Your task to perform on an android device: Is it going to rain this weekend? Image 0: 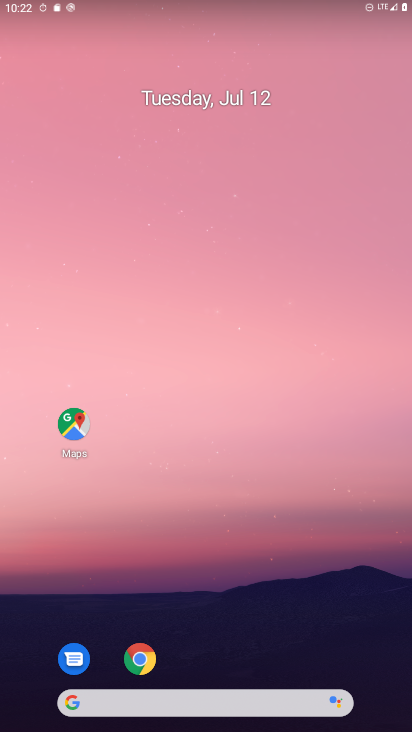
Step 0: drag from (391, 685) to (251, 45)
Your task to perform on an android device: Is it going to rain this weekend? Image 1: 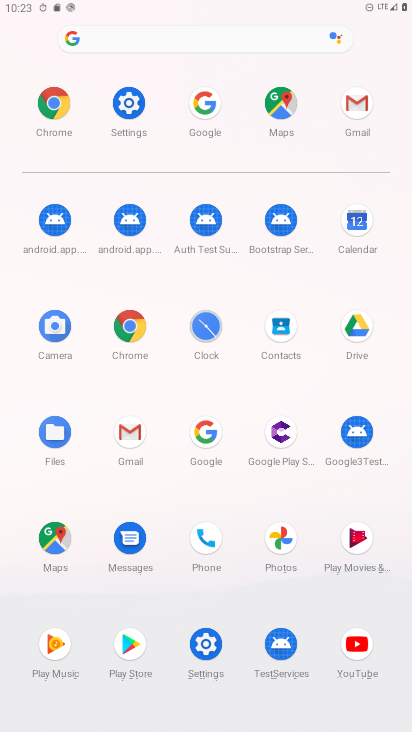
Step 1: click (203, 436)
Your task to perform on an android device: Is it going to rain this weekend? Image 2: 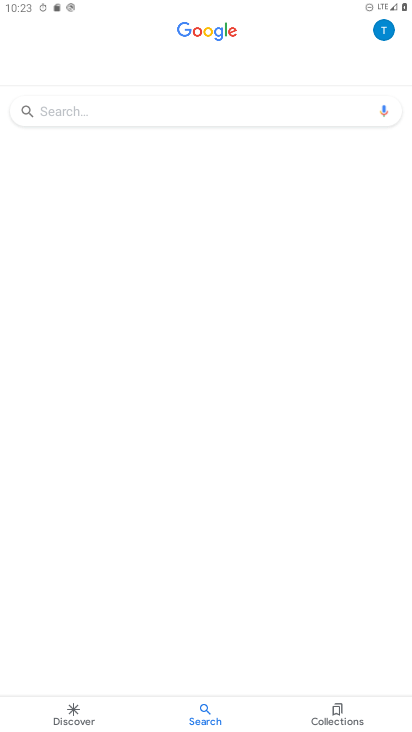
Step 2: click (69, 116)
Your task to perform on an android device: Is it going to rain this weekend? Image 3: 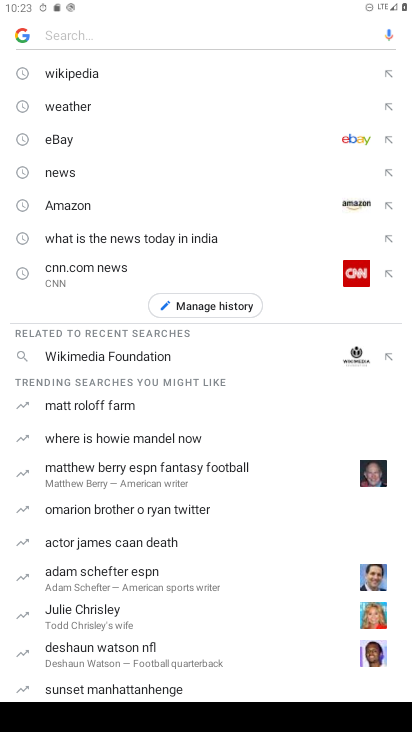
Step 3: type "Is it going to rain this weekend?"
Your task to perform on an android device: Is it going to rain this weekend? Image 4: 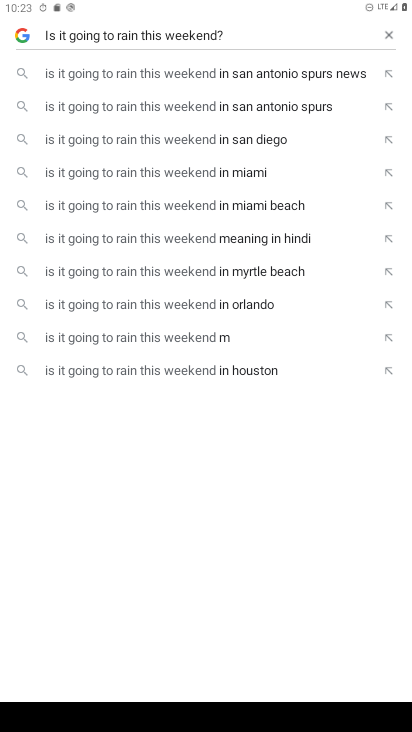
Step 4: click (156, 337)
Your task to perform on an android device: Is it going to rain this weekend? Image 5: 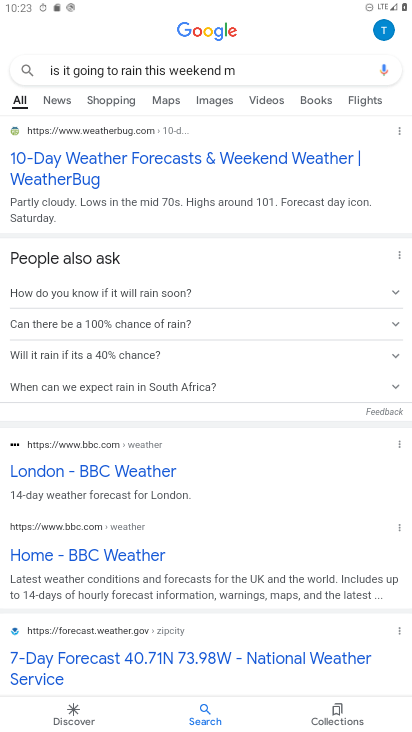
Step 5: task complete